Your task to perform on an android device: Check the news Image 0: 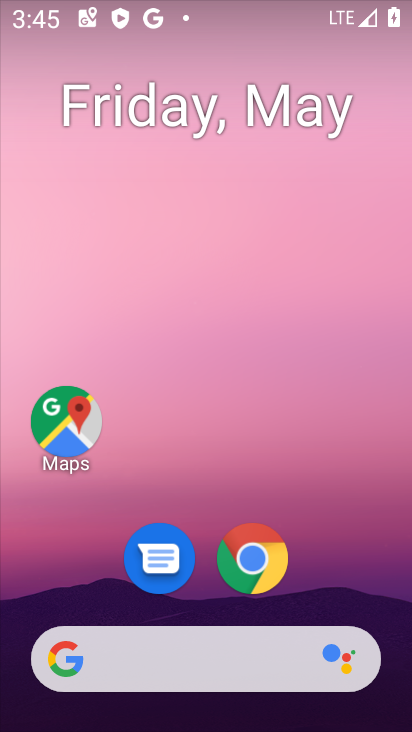
Step 0: press home button
Your task to perform on an android device: Check the news Image 1: 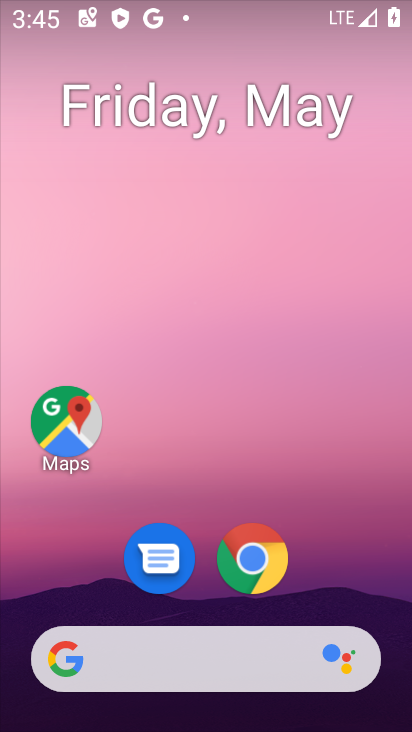
Step 1: click (72, 664)
Your task to perform on an android device: Check the news Image 2: 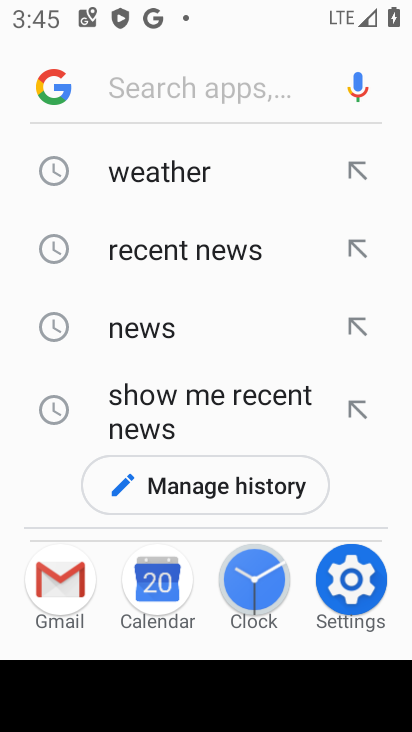
Step 2: click (168, 336)
Your task to perform on an android device: Check the news Image 3: 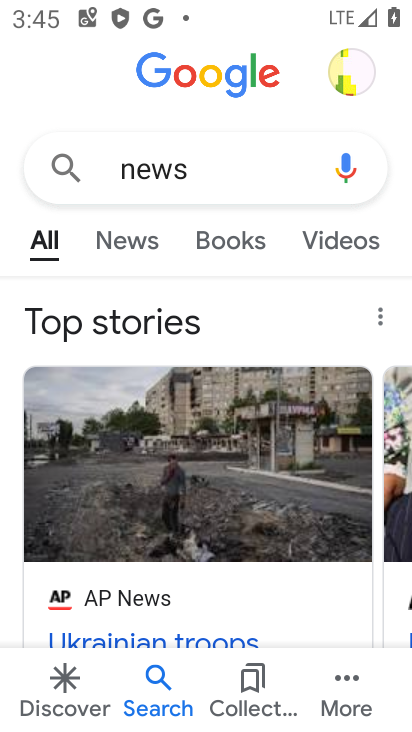
Step 3: click (127, 240)
Your task to perform on an android device: Check the news Image 4: 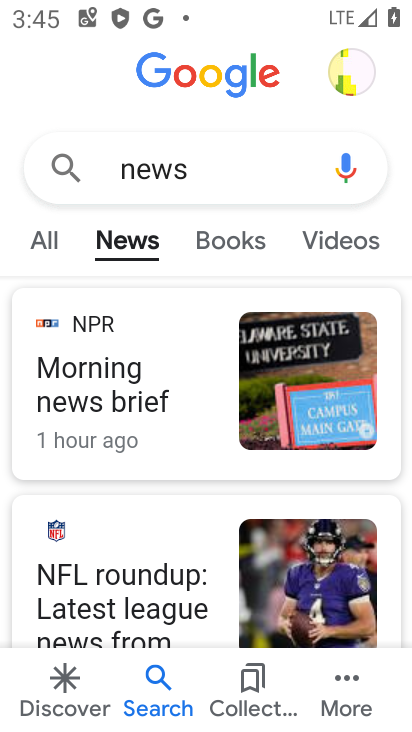
Step 4: task complete